Your task to perform on an android device: stop showing notifications on the lock screen Image 0: 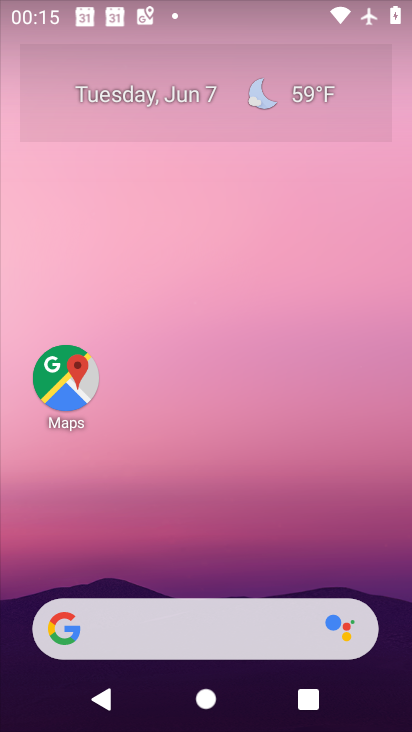
Step 0: drag from (166, 311) to (145, 136)
Your task to perform on an android device: stop showing notifications on the lock screen Image 1: 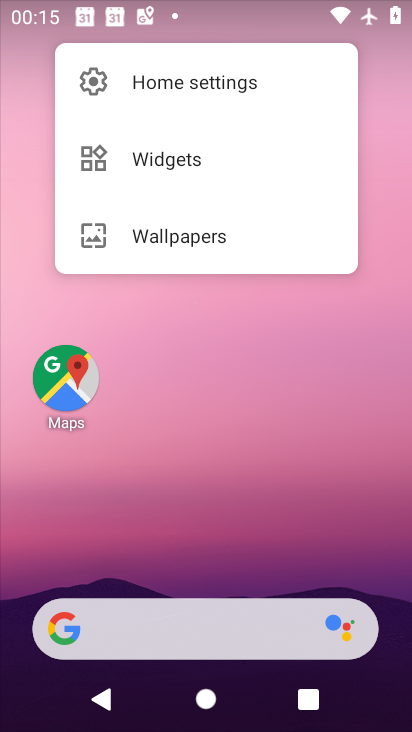
Step 1: click (187, 494)
Your task to perform on an android device: stop showing notifications on the lock screen Image 2: 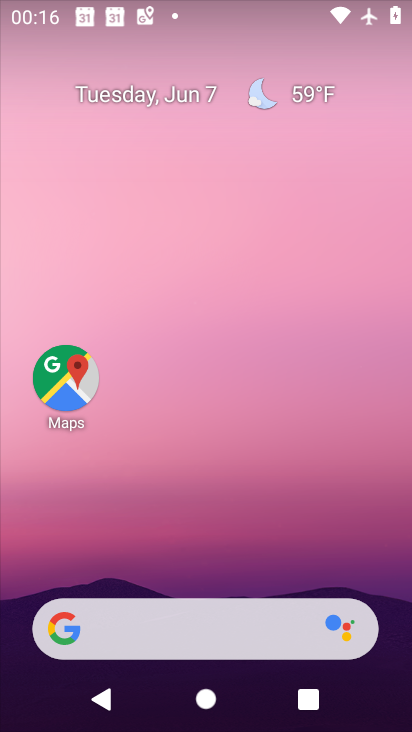
Step 2: drag from (195, 572) to (180, 94)
Your task to perform on an android device: stop showing notifications on the lock screen Image 3: 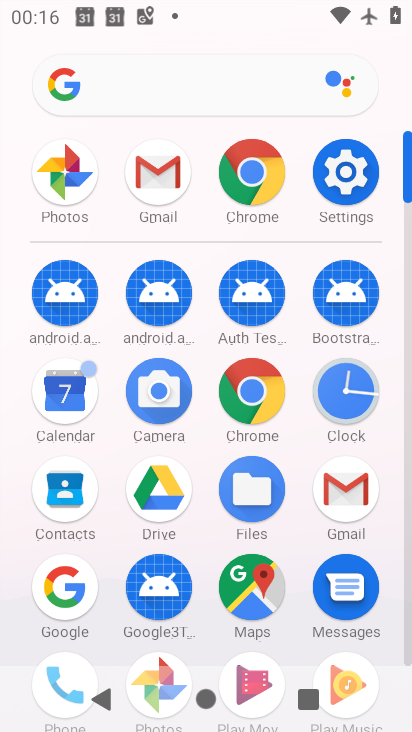
Step 3: click (341, 171)
Your task to perform on an android device: stop showing notifications on the lock screen Image 4: 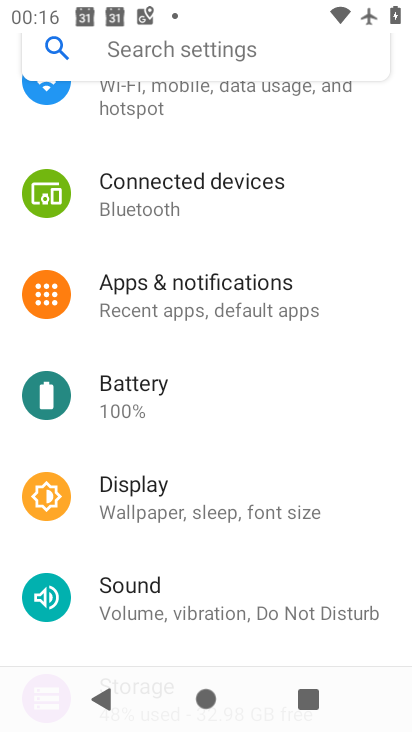
Step 4: click (206, 301)
Your task to perform on an android device: stop showing notifications on the lock screen Image 5: 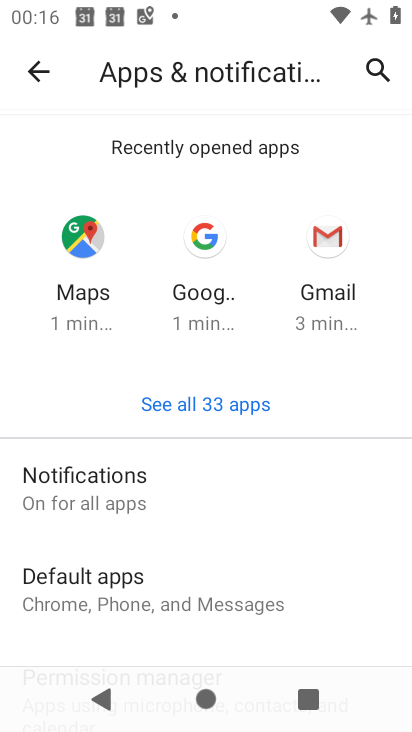
Step 5: click (113, 491)
Your task to perform on an android device: stop showing notifications on the lock screen Image 6: 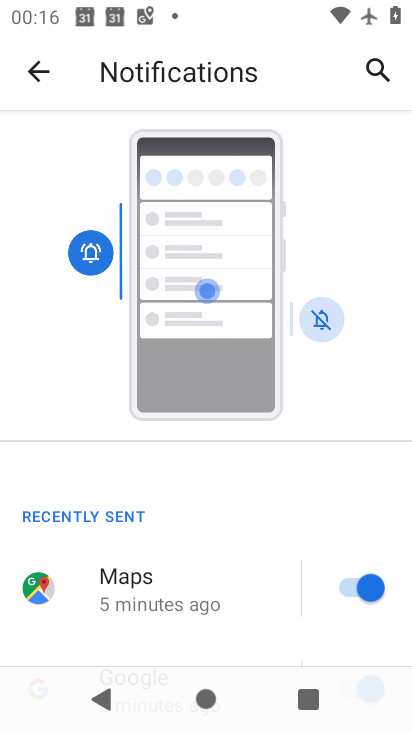
Step 6: drag from (157, 412) to (156, 186)
Your task to perform on an android device: stop showing notifications on the lock screen Image 7: 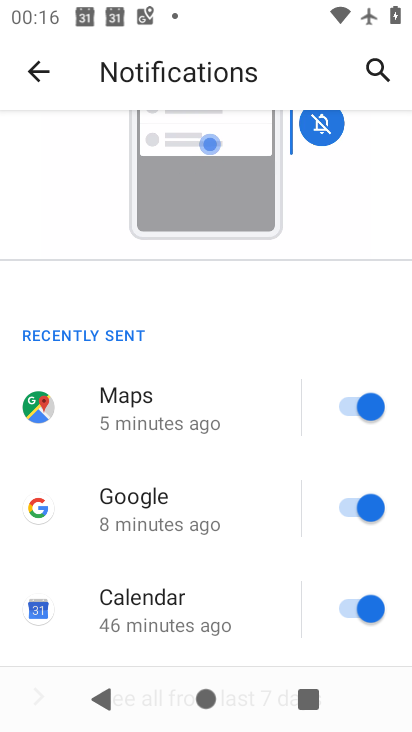
Step 7: drag from (191, 546) to (166, 162)
Your task to perform on an android device: stop showing notifications on the lock screen Image 8: 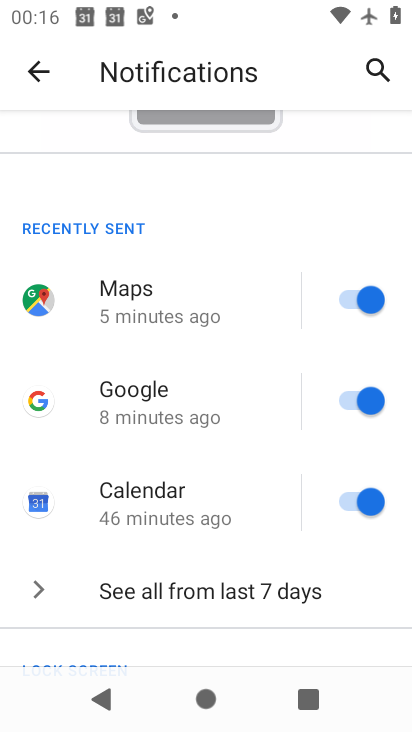
Step 8: drag from (259, 483) to (262, 147)
Your task to perform on an android device: stop showing notifications on the lock screen Image 9: 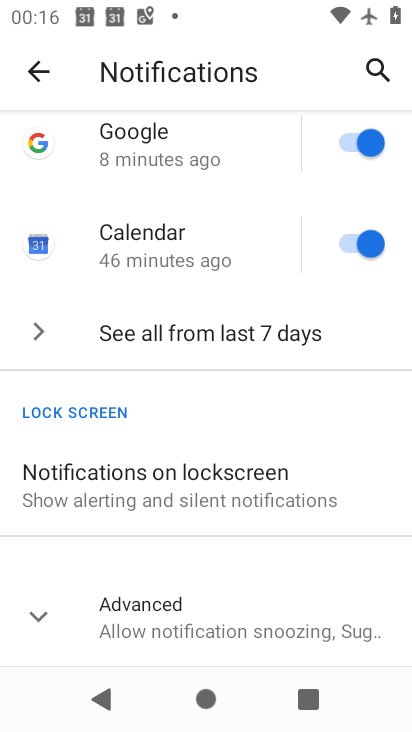
Step 9: click (124, 496)
Your task to perform on an android device: stop showing notifications on the lock screen Image 10: 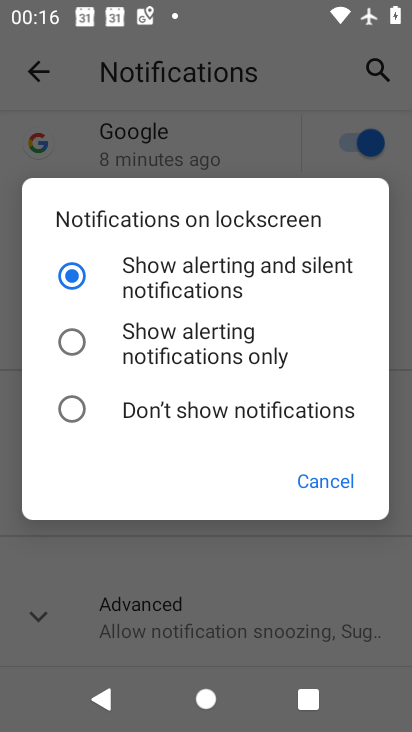
Step 10: click (68, 415)
Your task to perform on an android device: stop showing notifications on the lock screen Image 11: 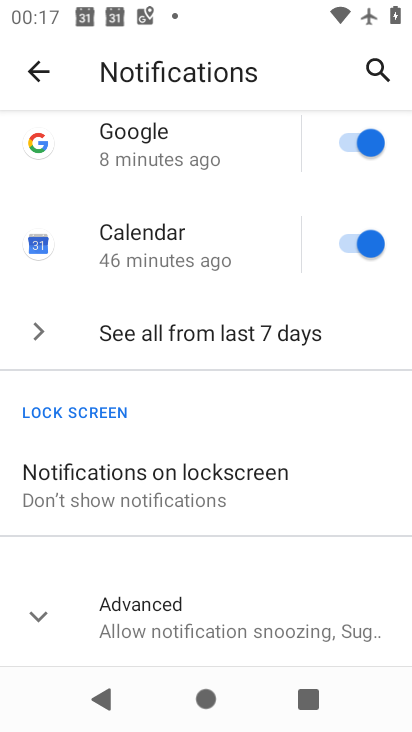
Step 11: task complete